Your task to perform on an android device: Open Google Chrome Image 0: 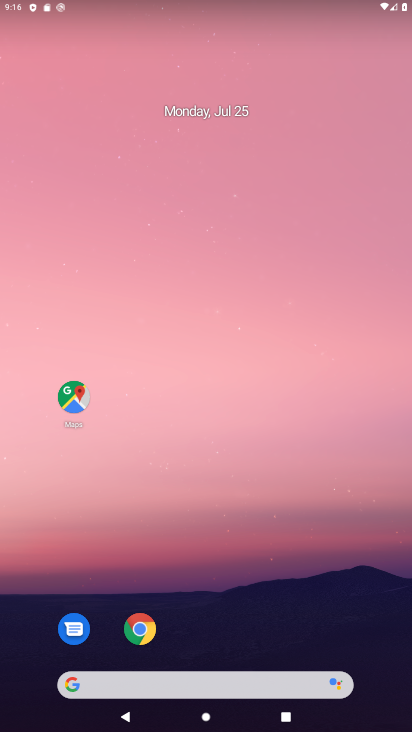
Step 0: drag from (285, 645) to (214, 48)
Your task to perform on an android device: Open Google Chrome Image 1: 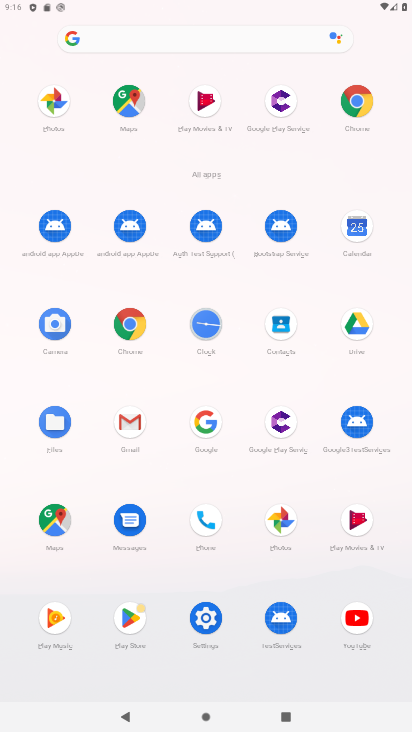
Step 1: click (362, 91)
Your task to perform on an android device: Open Google Chrome Image 2: 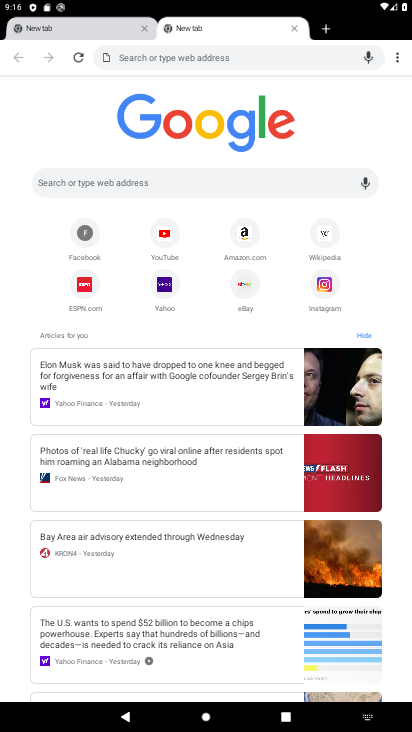
Step 2: task complete